Your task to perform on an android device: change keyboard looks Image 0: 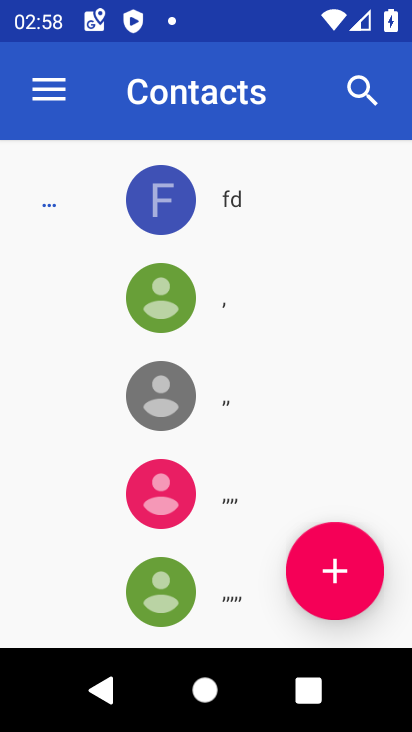
Step 0: press home button
Your task to perform on an android device: change keyboard looks Image 1: 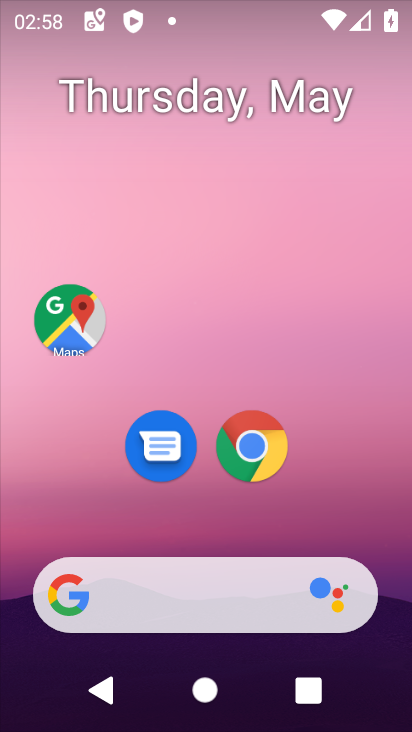
Step 1: drag from (359, 512) to (394, 30)
Your task to perform on an android device: change keyboard looks Image 2: 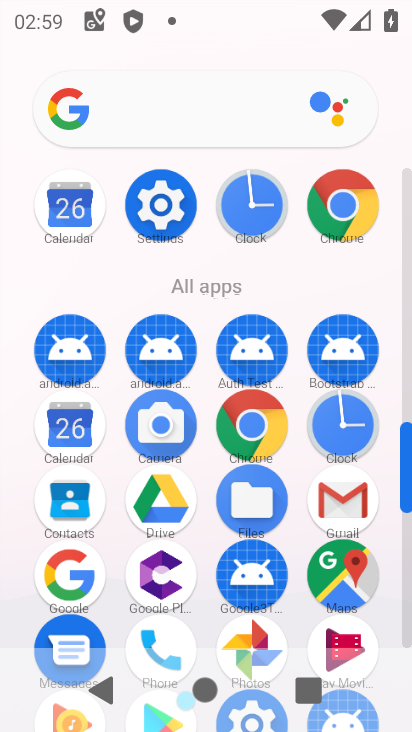
Step 2: click (157, 208)
Your task to perform on an android device: change keyboard looks Image 3: 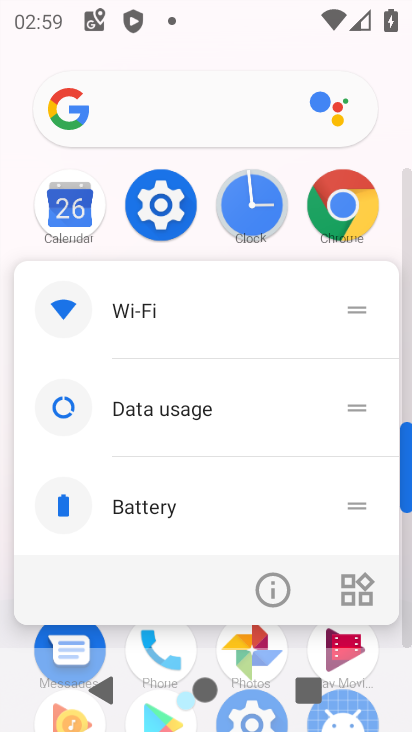
Step 3: click (160, 208)
Your task to perform on an android device: change keyboard looks Image 4: 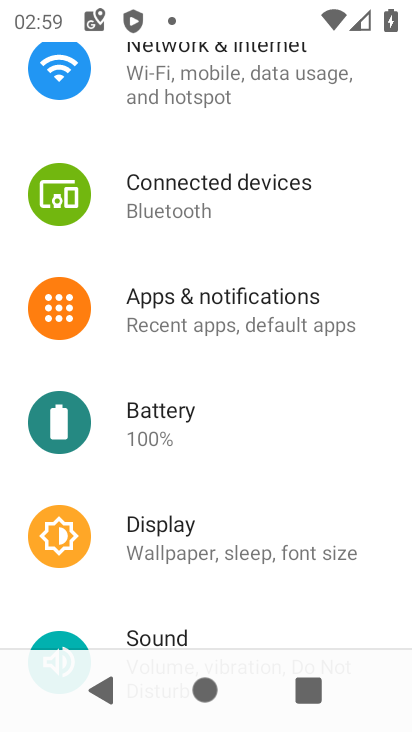
Step 4: drag from (225, 511) to (228, 107)
Your task to perform on an android device: change keyboard looks Image 5: 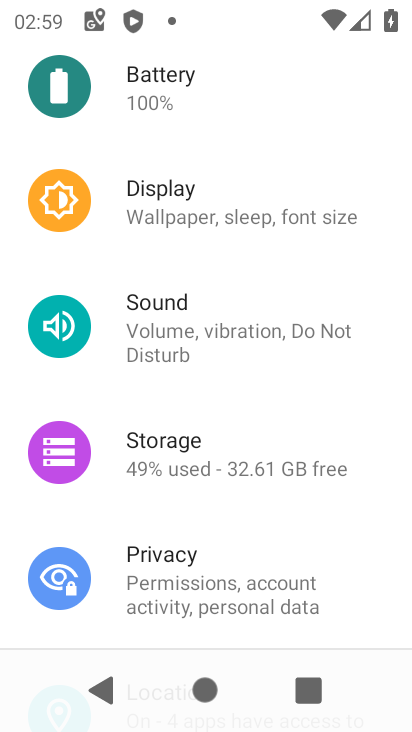
Step 5: drag from (188, 497) to (198, 146)
Your task to perform on an android device: change keyboard looks Image 6: 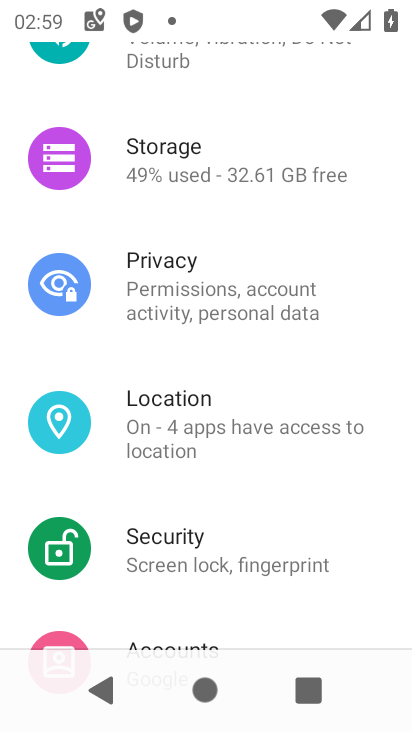
Step 6: drag from (230, 538) to (230, 211)
Your task to perform on an android device: change keyboard looks Image 7: 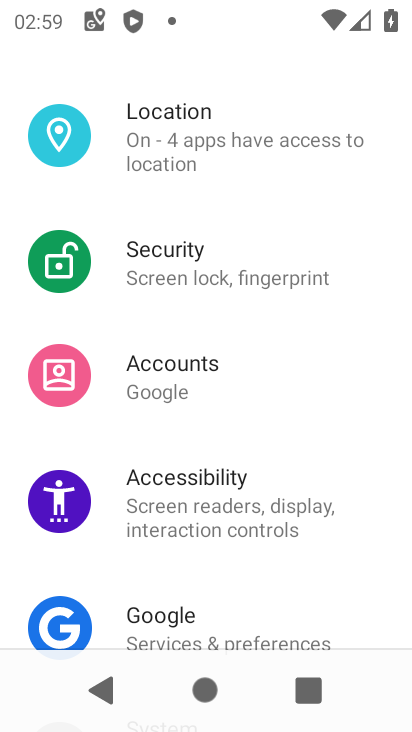
Step 7: drag from (231, 531) to (216, 181)
Your task to perform on an android device: change keyboard looks Image 8: 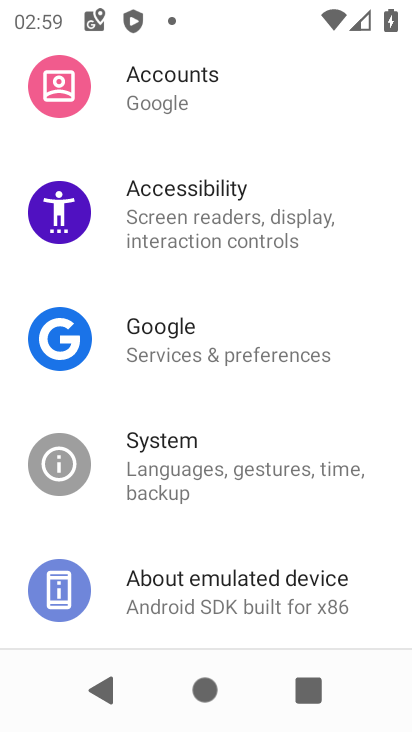
Step 8: click (161, 473)
Your task to perform on an android device: change keyboard looks Image 9: 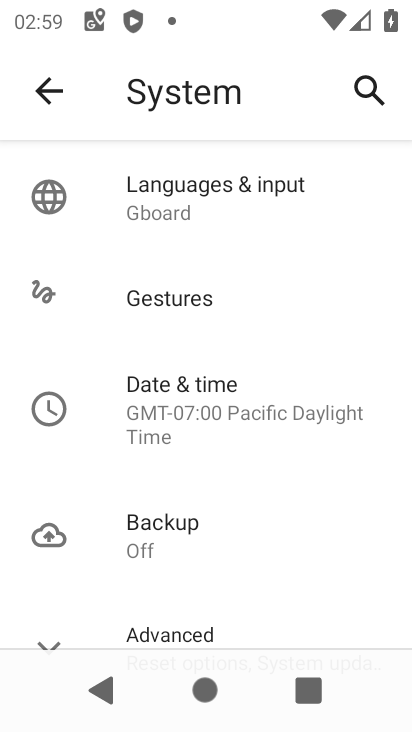
Step 9: click (180, 204)
Your task to perform on an android device: change keyboard looks Image 10: 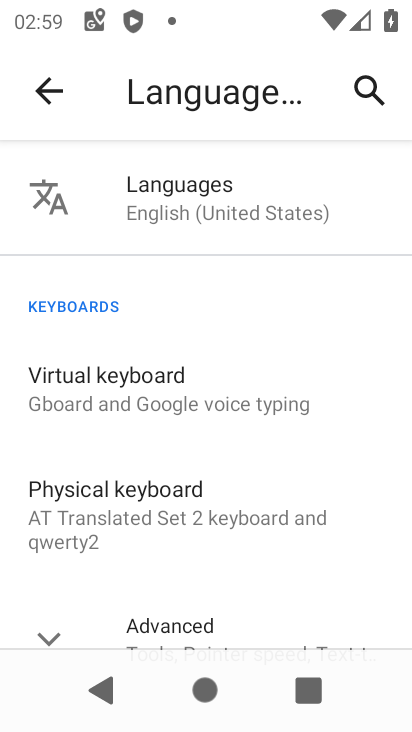
Step 10: click (103, 379)
Your task to perform on an android device: change keyboard looks Image 11: 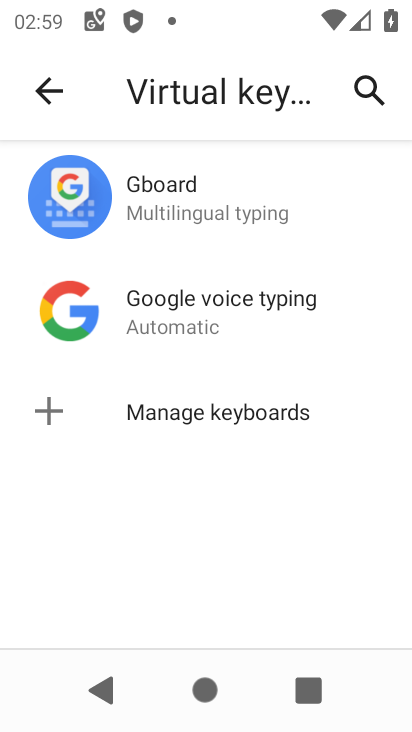
Step 11: click (168, 204)
Your task to perform on an android device: change keyboard looks Image 12: 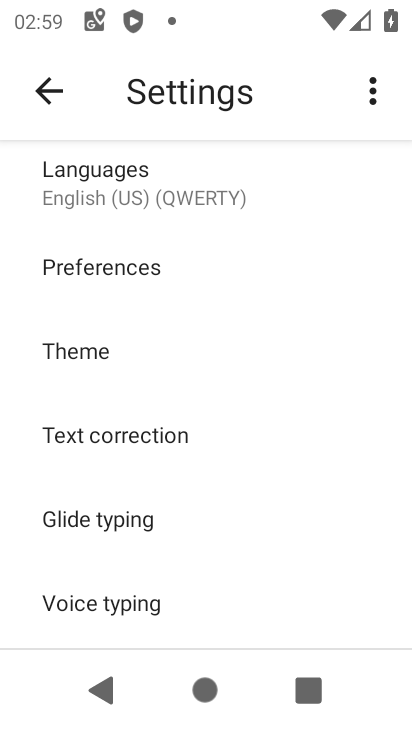
Step 12: click (69, 356)
Your task to perform on an android device: change keyboard looks Image 13: 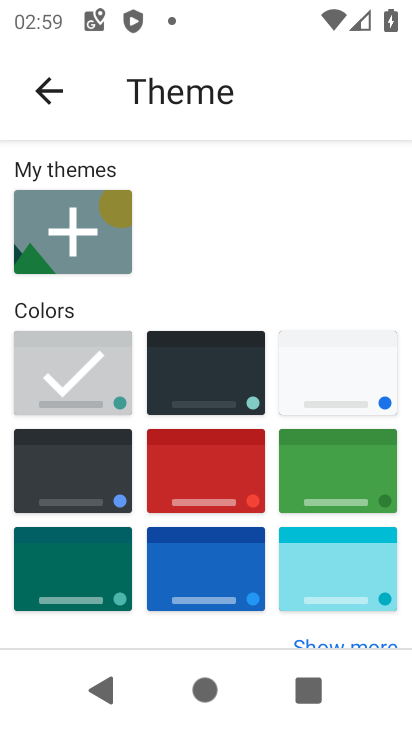
Step 13: click (211, 486)
Your task to perform on an android device: change keyboard looks Image 14: 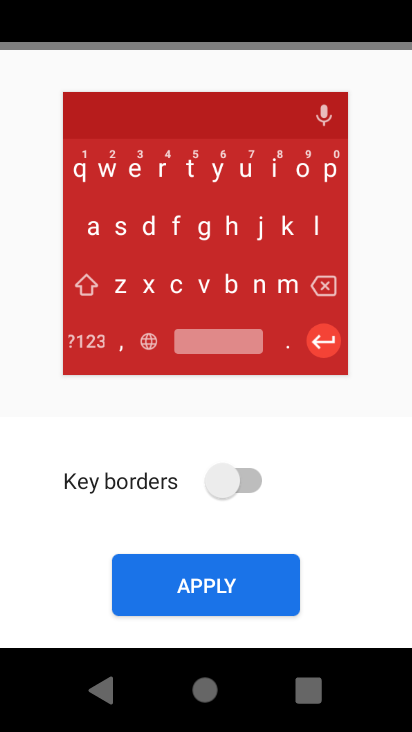
Step 14: click (217, 485)
Your task to perform on an android device: change keyboard looks Image 15: 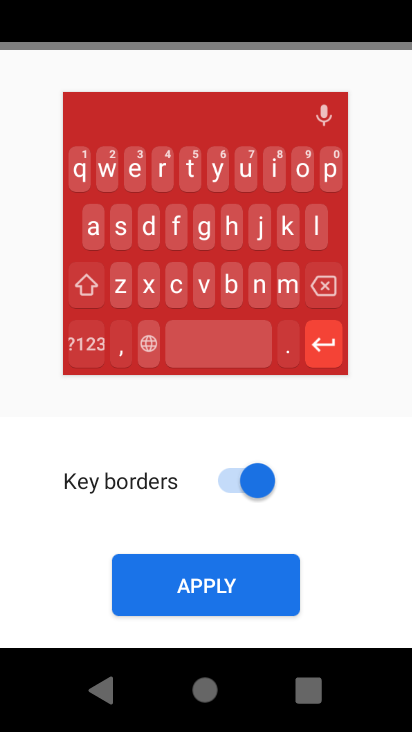
Step 15: click (201, 589)
Your task to perform on an android device: change keyboard looks Image 16: 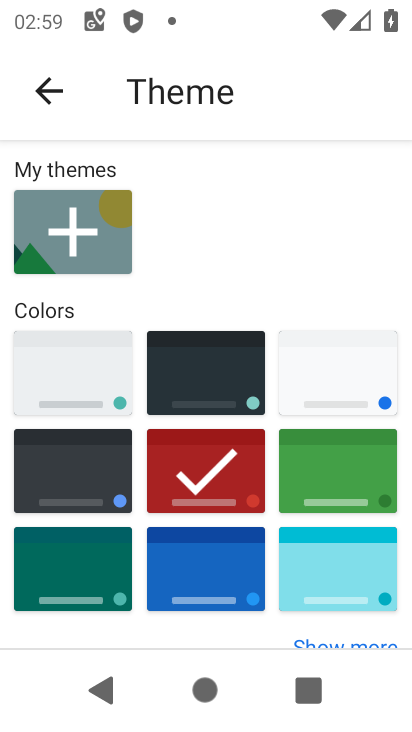
Step 16: task complete